Your task to perform on an android device: Toggle the flashlight Image 0: 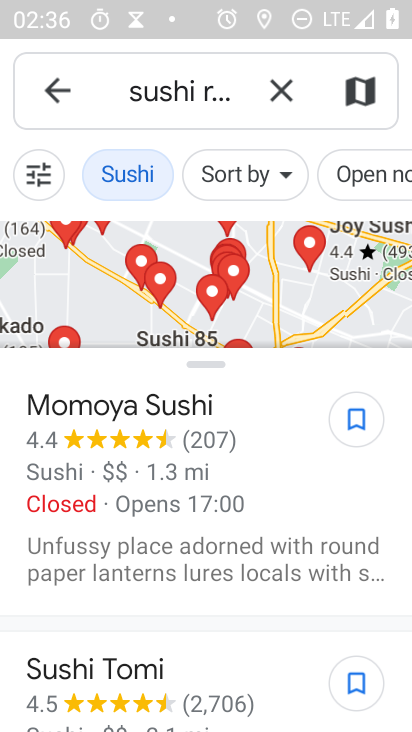
Step 0: press home button
Your task to perform on an android device: Toggle the flashlight Image 1: 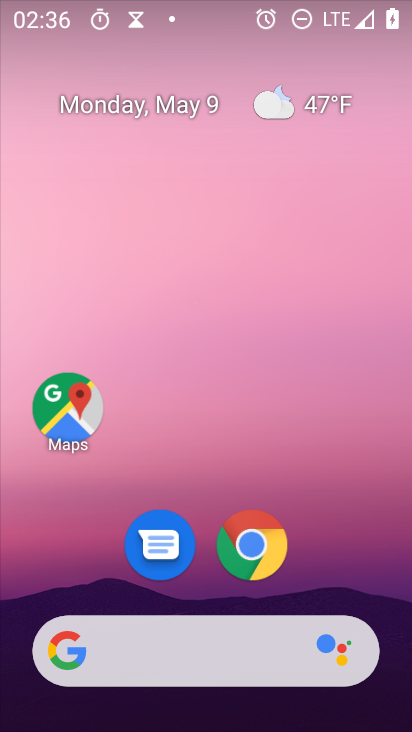
Step 1: drag from (352, 621) to (367, 7)
Your task to perform on an android device: Toggle the flashlight Image 2: 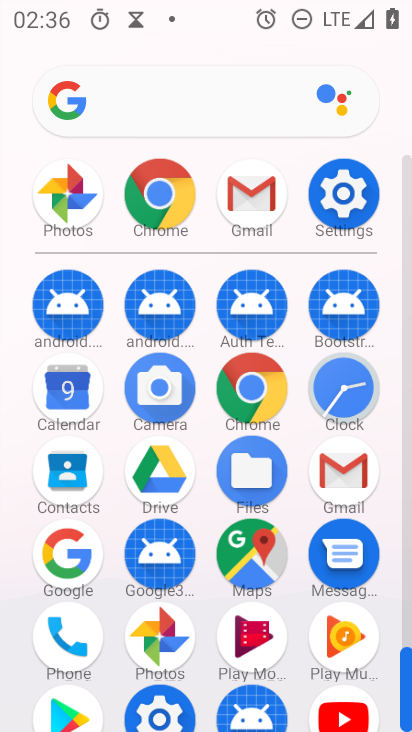
Step 2: click (353, 209)
Your task to perform on an android device: Toggle the flashlight Image 3: 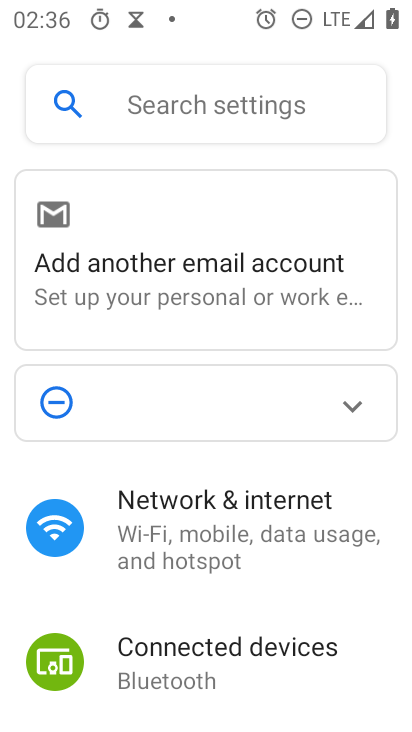
Step 3: drag from (252, 604) to (257, 177)
Your task to perform on an android device: Toggle the flashlight Image 4: 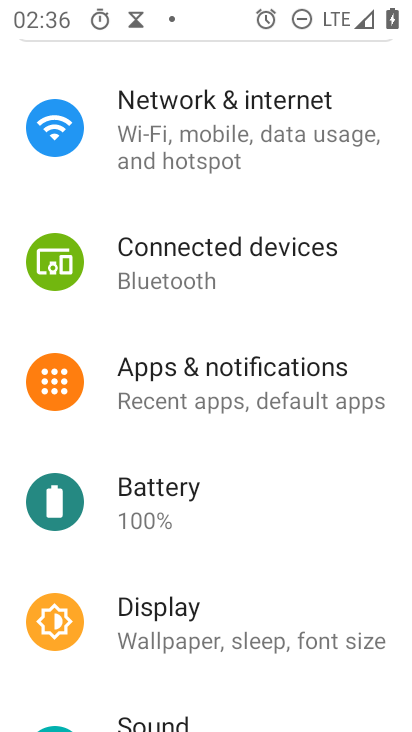
Step 4: click (264, 140)
Your task to perform on an android device: Toggle the flashlight Image 5: 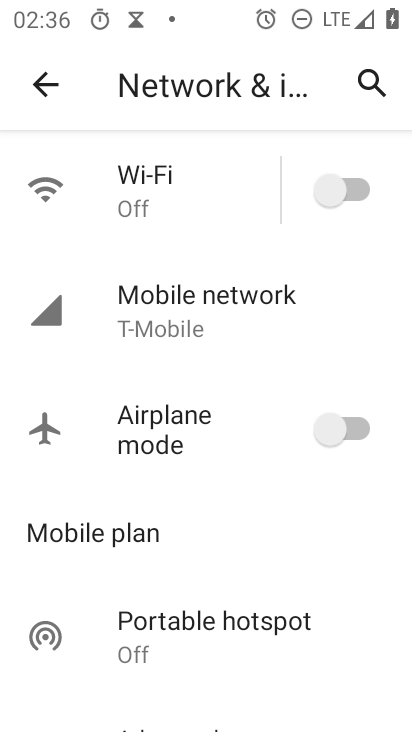
Step 5: task complete